Your task to perform on an android device: Open Yahoo.com Image 0: 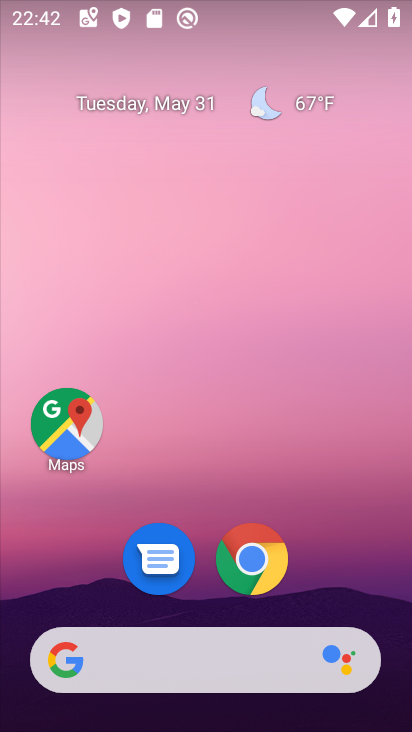
Step 0: click (252, 562)
Your task to perform on an android device: Open Yahoo.com Image 1: 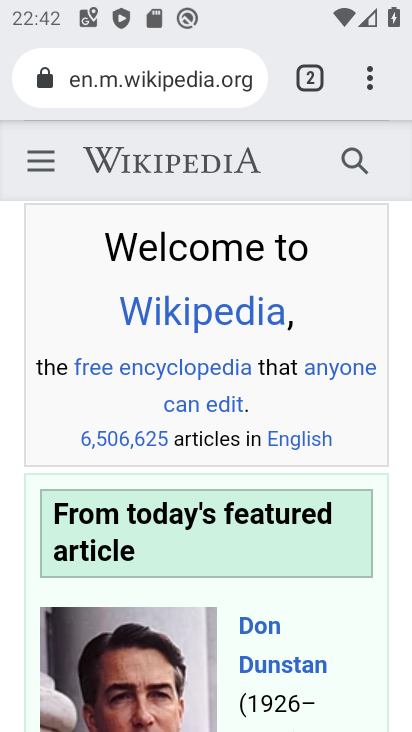
Step 1: press back button
Your task to perform on an android device: Open Yahoo.com Image 2: 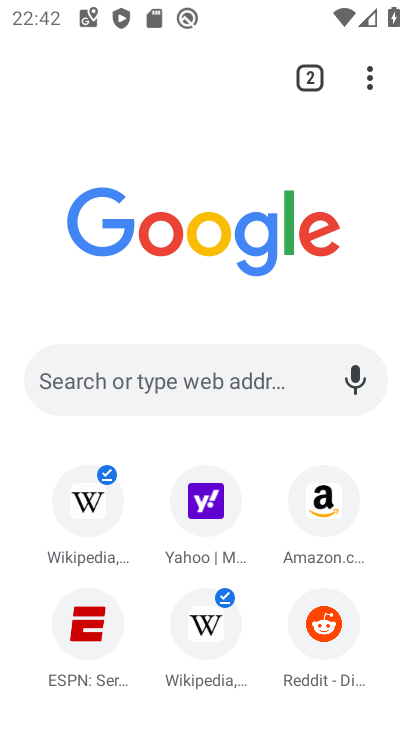
Step 2: click (209, 505)
Your task to perform on an android device: Open Yahoo.com Image 3: 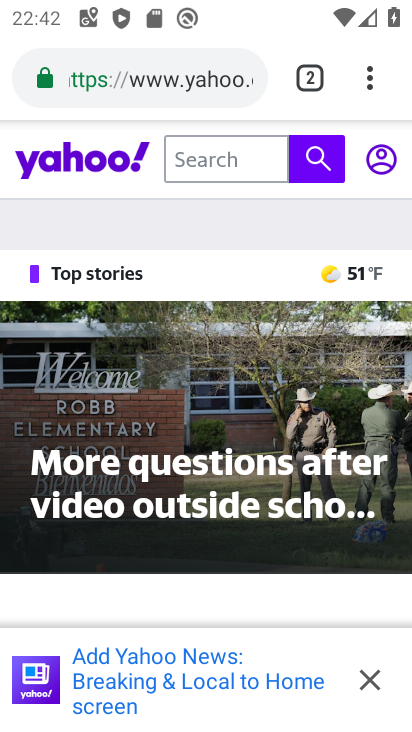
Step 3: task complete